Your task to perform on an android device: Clear the shopping cart on ebay. Image 0: 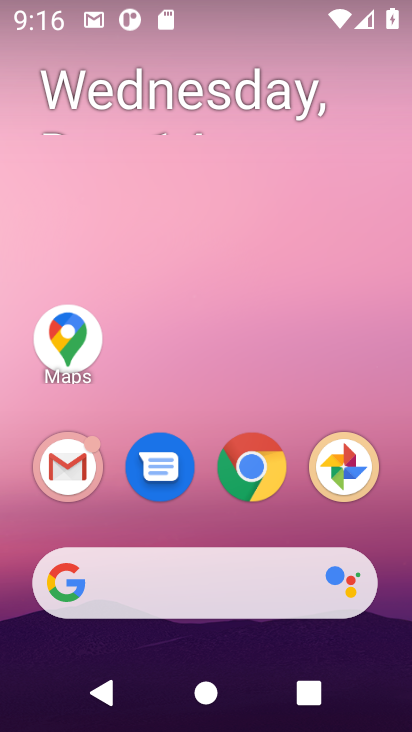
Step 0: click (242, 460)
Your task to perform on an android device: Clear the shopping cart on ebay. Image 1: 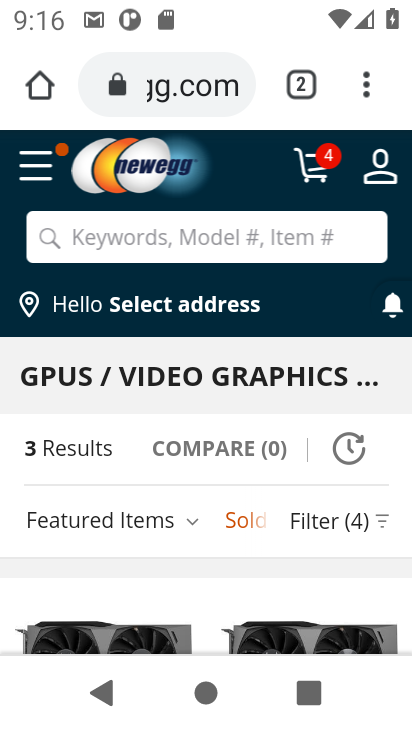
Step 1: click (187, 96)
Your task to perform on an android device: Clear the shopping cart on ebay. Image 2: 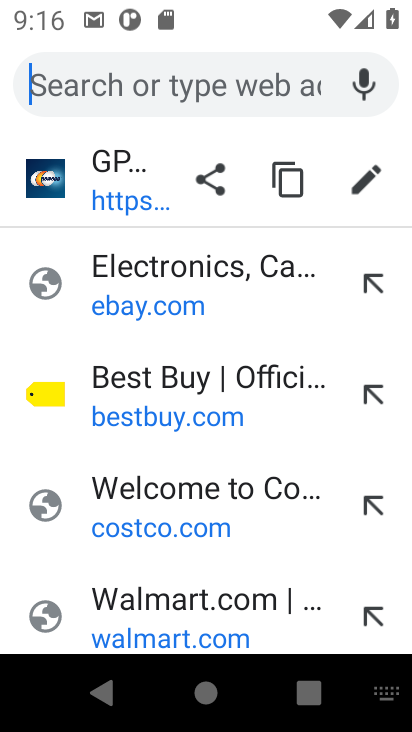
Step 2: click (153, 291)
Your task to perform on an android device: Clear the shopping cart on ebay. Image 3: 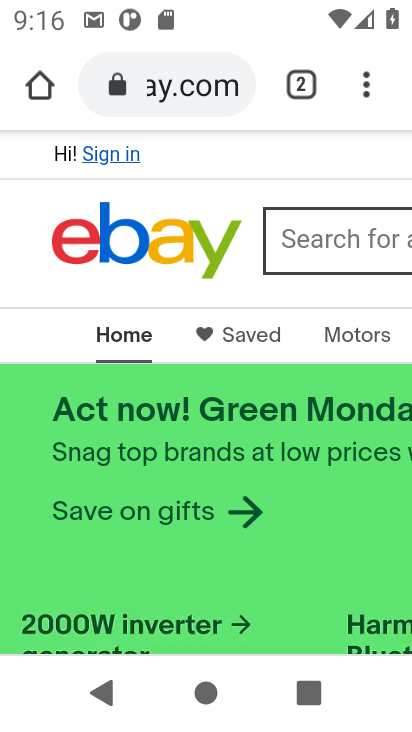
Step 3: click (312, 235)
Your task to perform on an android device: Clear the shopping cart on ebay. Image 4: 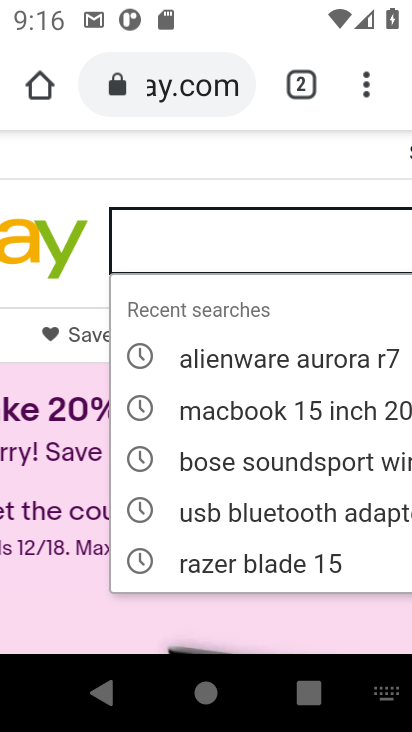
Step 4: task complete